Your task to perform on an android device: turn notification dots on Image 0: 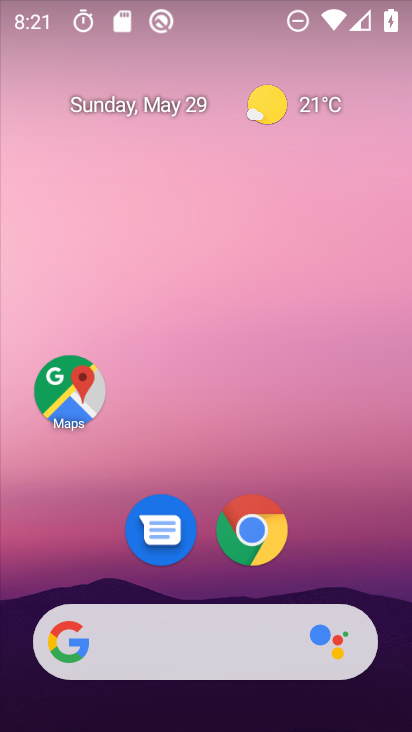
Step 0: drag from (210, 696) to (298, 117)
Your task to perform on an android device: turn notification dots on Image 1: 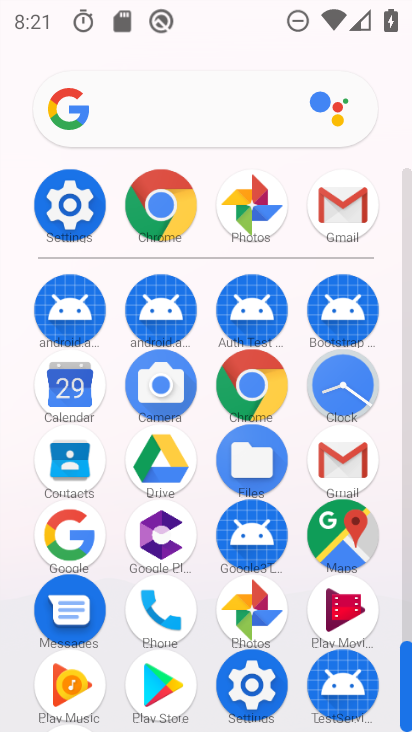
Step 1: click (68, 217)
Your task to perform on an android device: turn notification dots on Image 2: 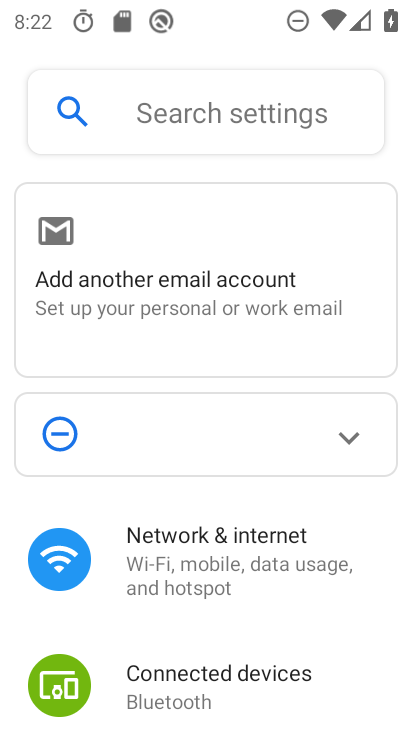
Step 2: click (187, 112)
Your task to perform on an android device: turn notification dots on Image 3: 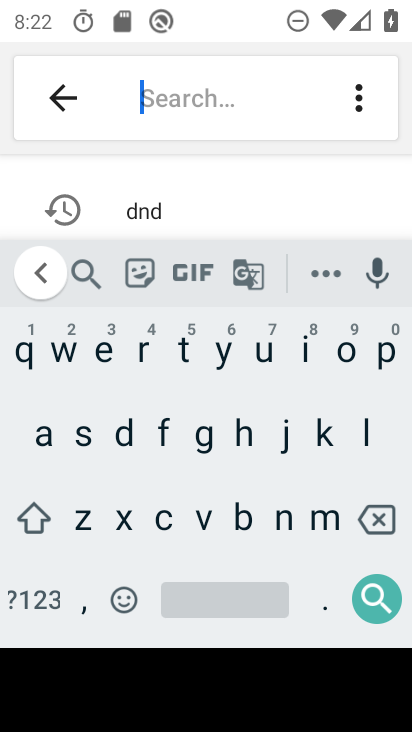
Step 3: click (121, 442)
Your task to perform on an android device: turn notification dots on Image 4: 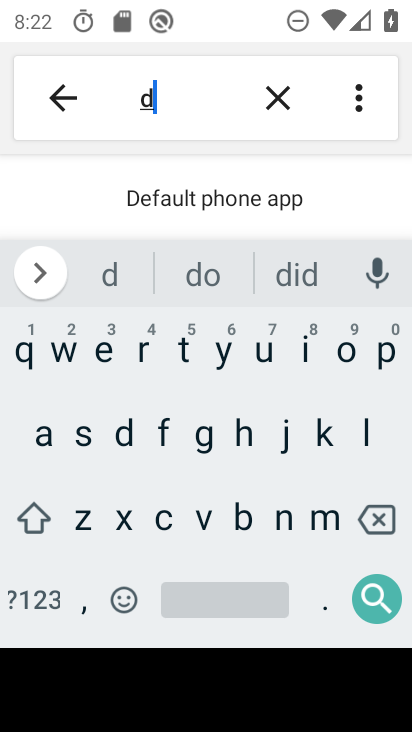
Step 4: click (339, 356)
Your task to perform on an android device: turn notification dots on Image 5: 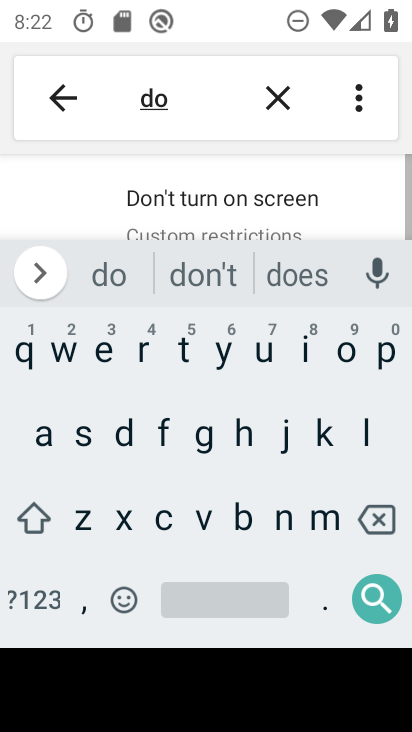
Step 5: click (182, 354)
Your task to perform on an android device: turn notification dots on Image 6: 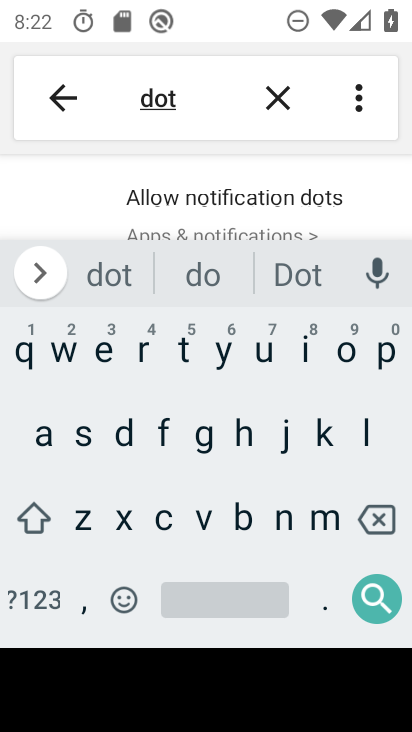
Step 6: click (246, 208)
Your task to perform on an android device: turn notification dots on Image 7: 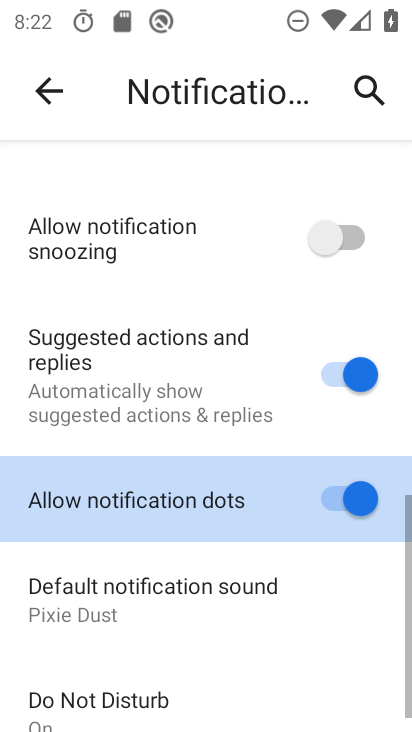
Step 7: click (335, 497)
Your task to perform on an android device: turn notification dots on Image 8: 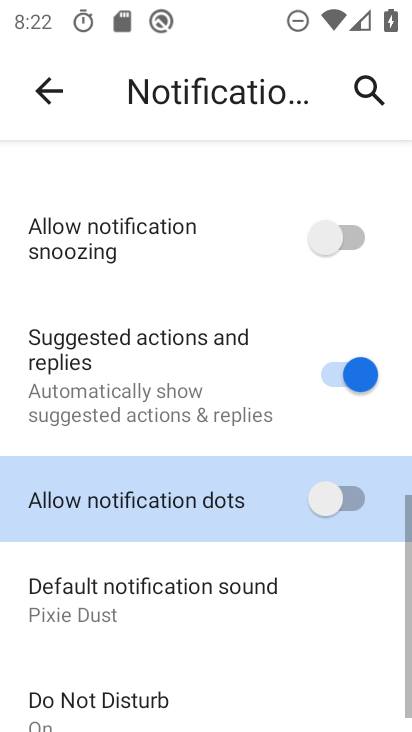
Step 8: click (333, 497)
Your task to perform on an android device: turn notification dots on Image 9: 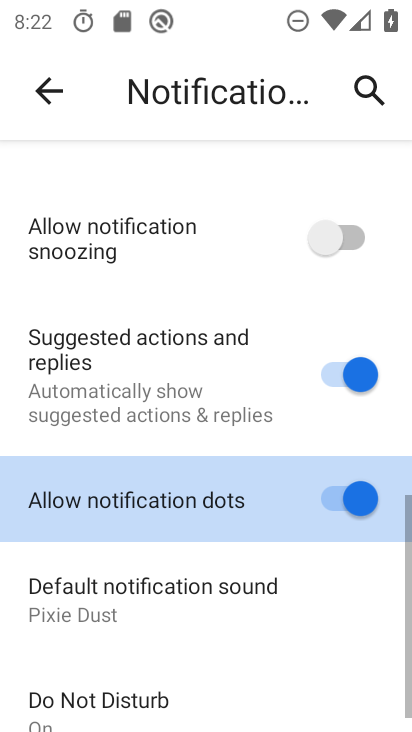
Step 9: task complete